Your task to perform on an android device: show emergency info Image 0: 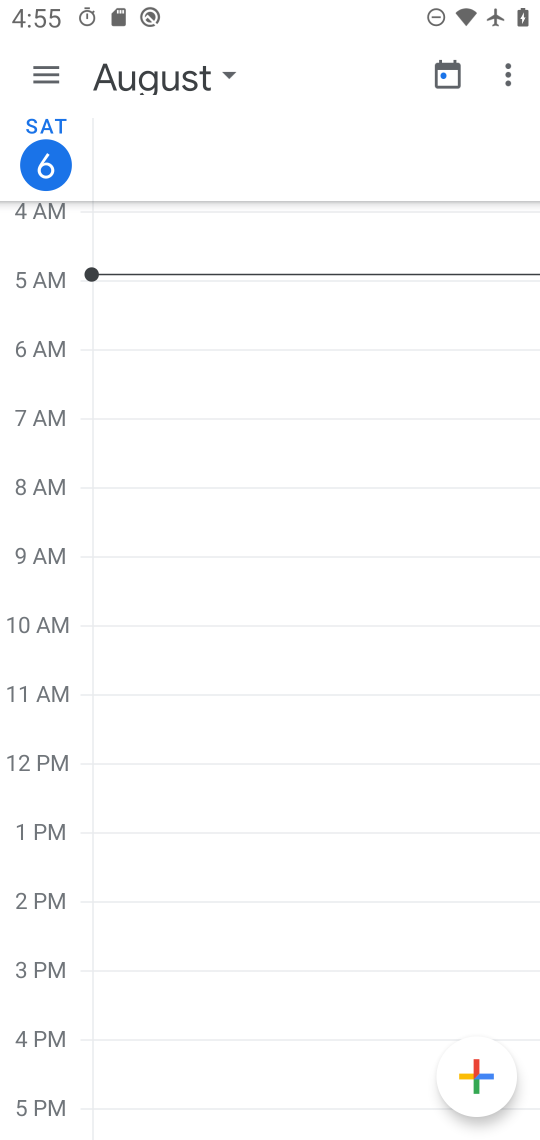
Step 0: press home button
Your task to perform on an android device: show emergency info Image 1: 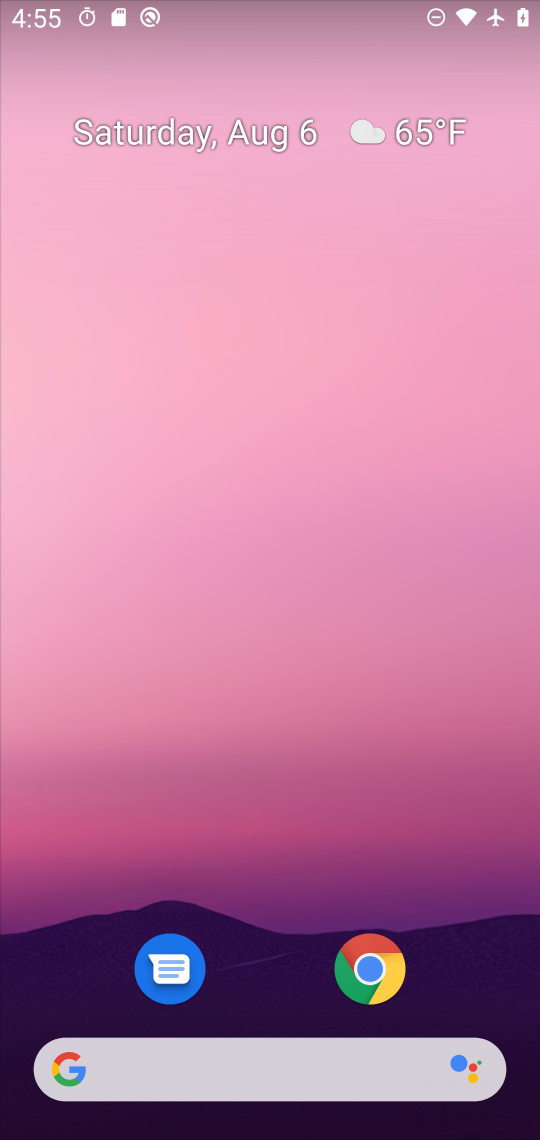
Step 1: drag from (246, 905) to (378, 5)
Your task to perform on an android device: show emergency info Image 2: 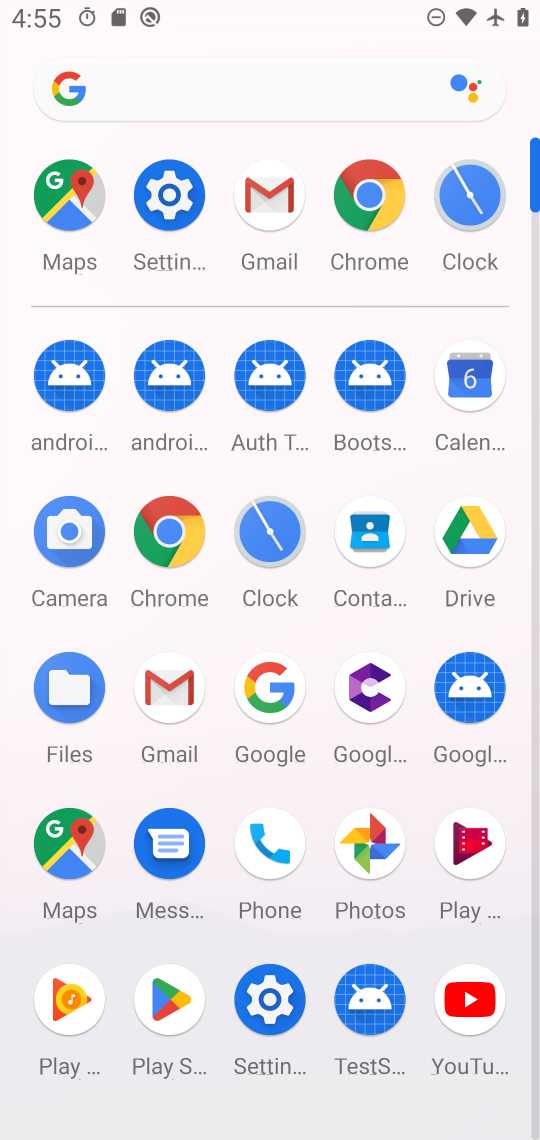
Step 2: click (167, 186)
Your task to perform on an android device: show emergency info Image 3: 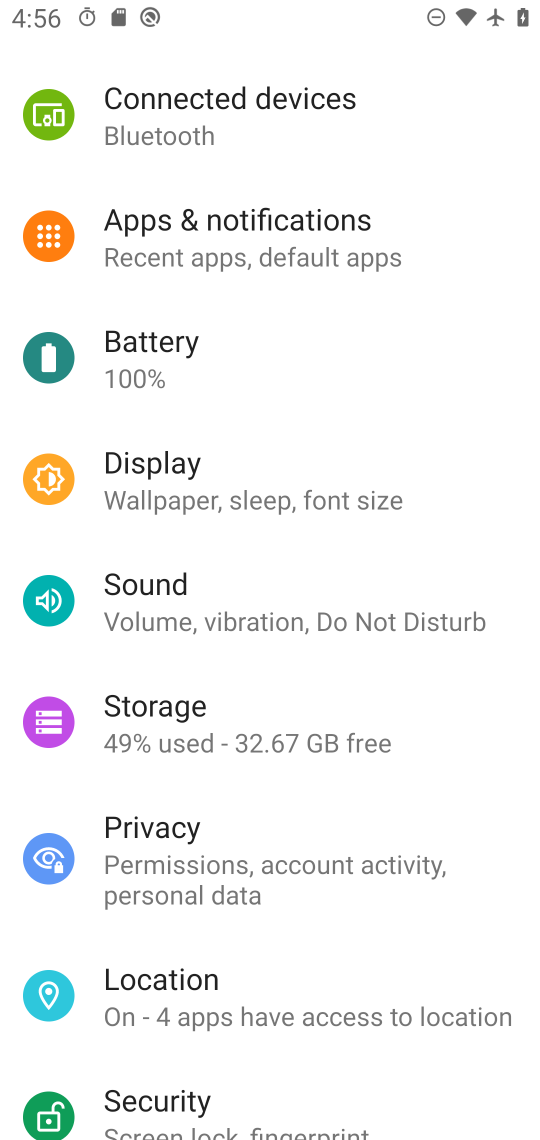
Step 3: drag from (414, 380) to (369, 1031)
Your task to perform on an android device: show emergency info Image 4: 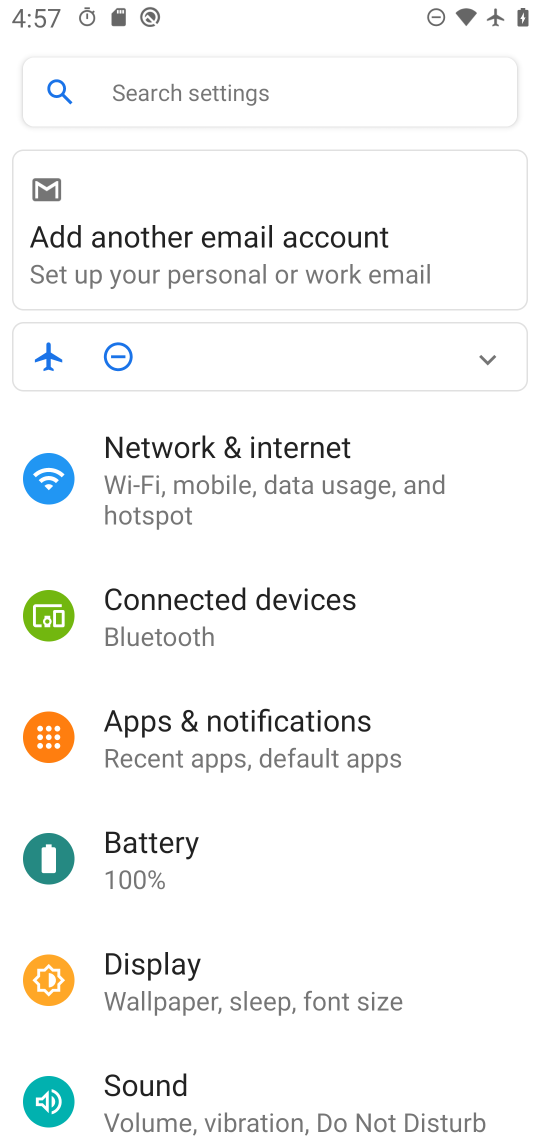
Step 4: drag from (378, 941) to (367, 663)
Your task to perform on an android device: show emergency info Image 5: 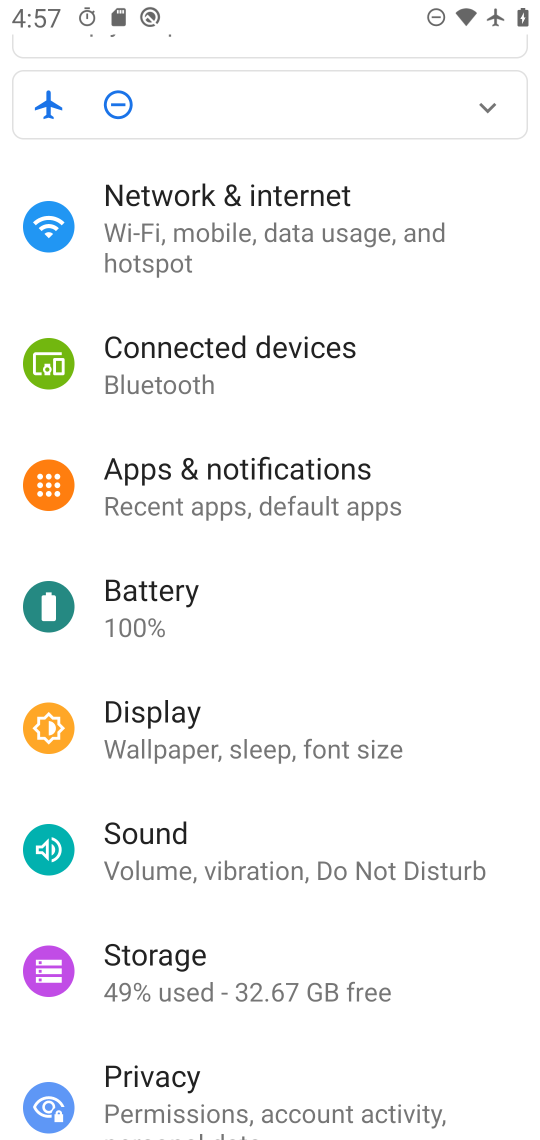
Step 5: drag from (366, 1079) to (361, 131)
Your task to perform on an android device: show emergency info Image 6: 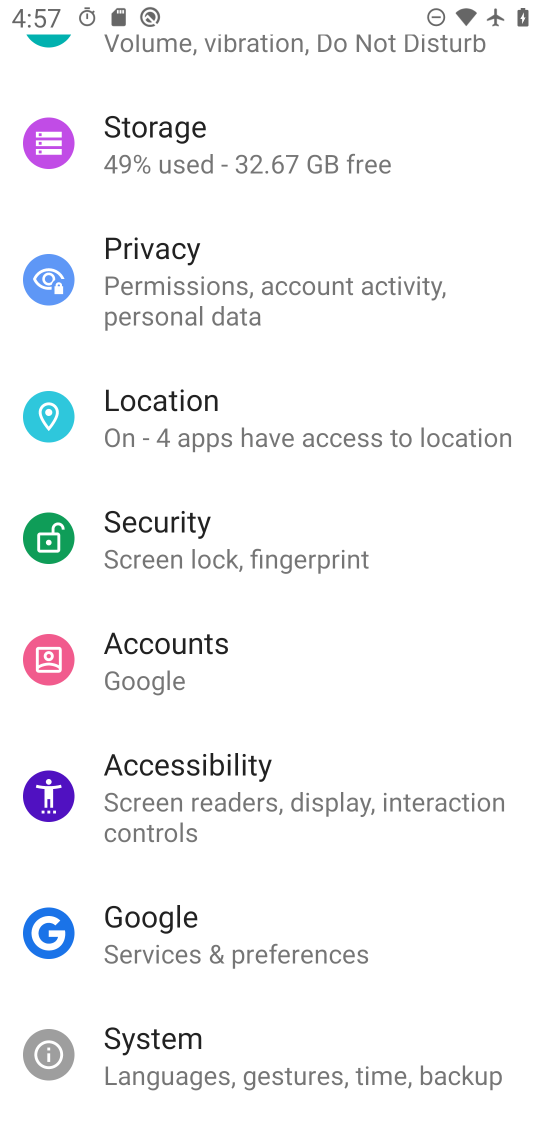
Step 6: drag from (337, 1054) to (361, 528)
Your task to perform on an android device: show emergency info Image 7: 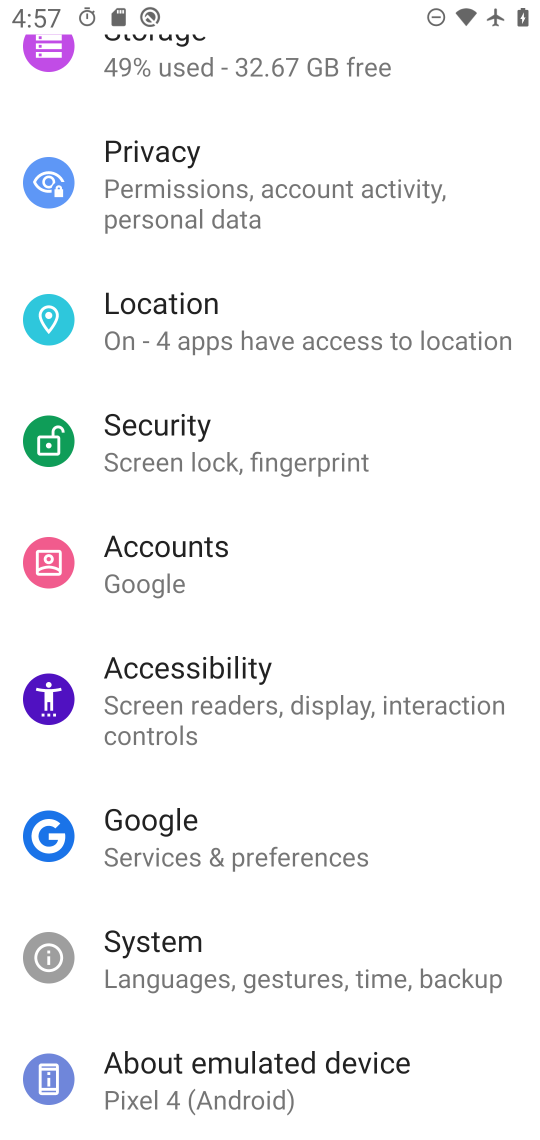
Step 7: click (182, 1091)
Your task to perform on an android device: show emergency info Image 8: 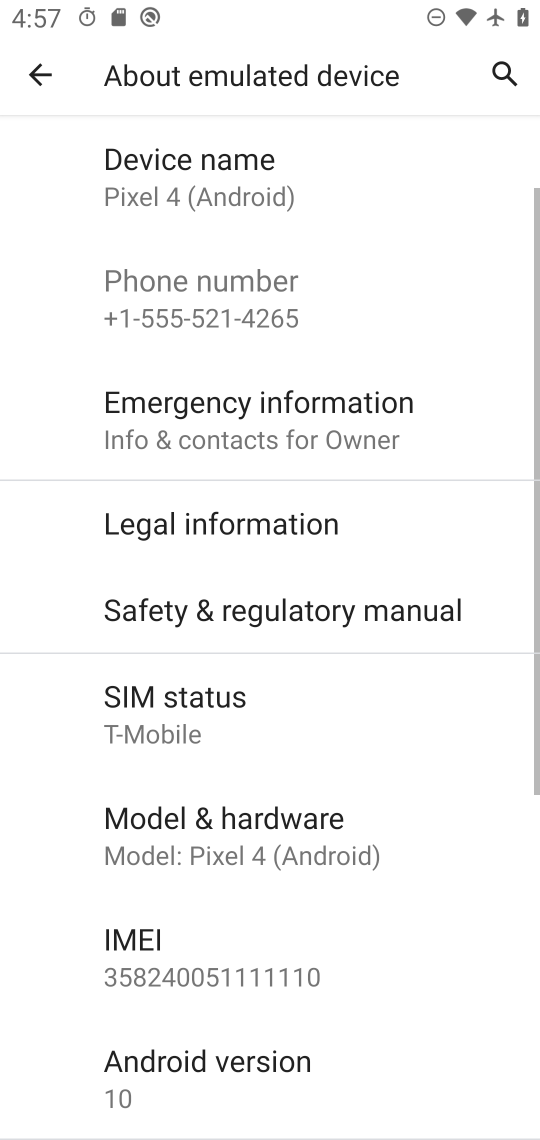
Step 8: click (296, 432)
Your task to perform on an android device: show emergency info Image 9: 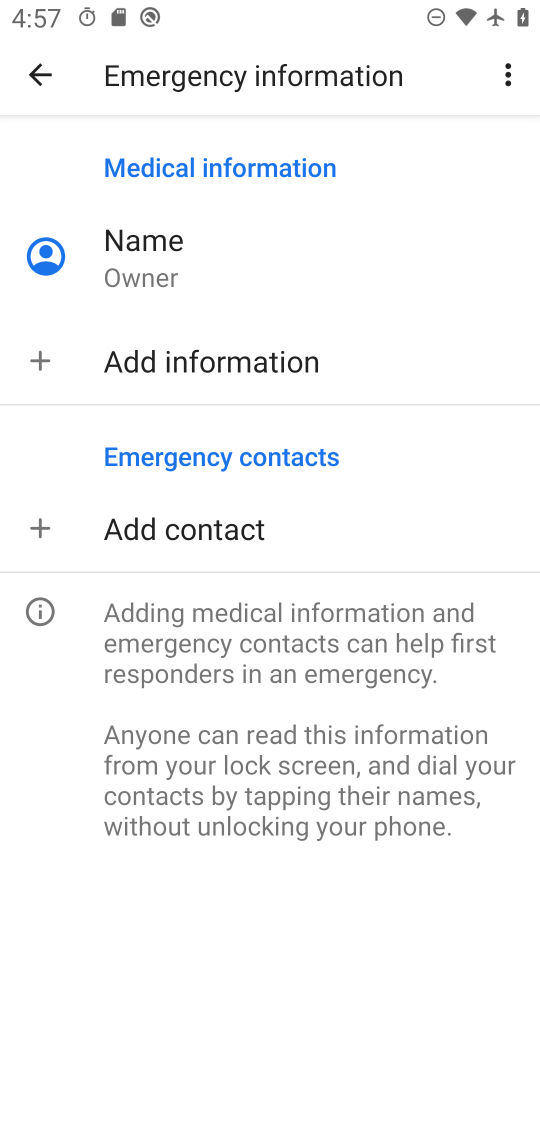
Step 9: task complete